Your task to perform on an android device: open app "Firefox Browser" (install if not already installed), go to login, and select forgot password Image 0: 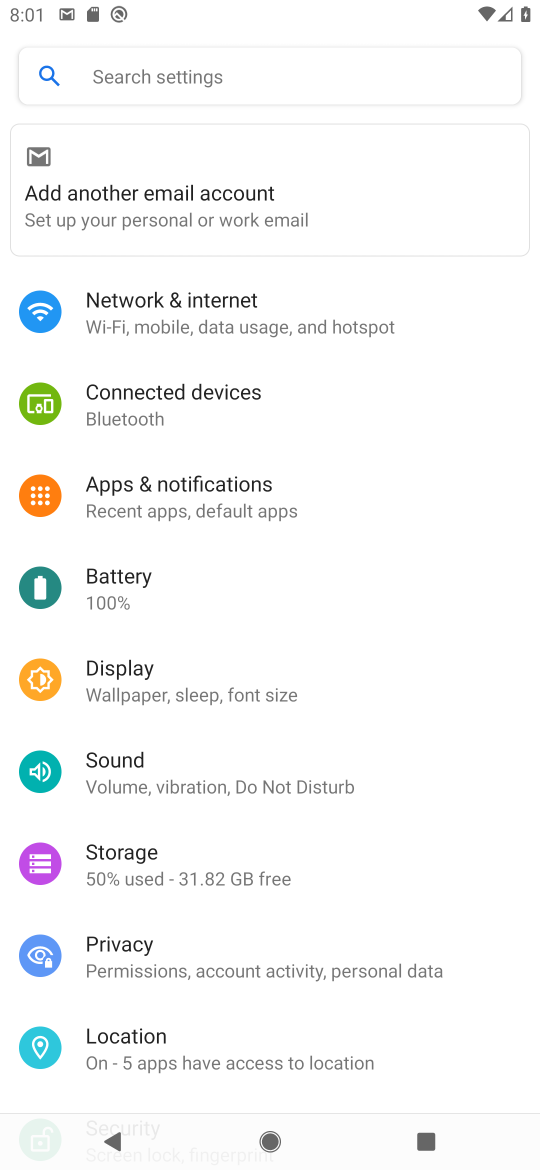
Step 0: press home button
Your task to perform on an android device: open app "Firefox Browser" (install if not already installed), go to login, and select forgot password Image 1: 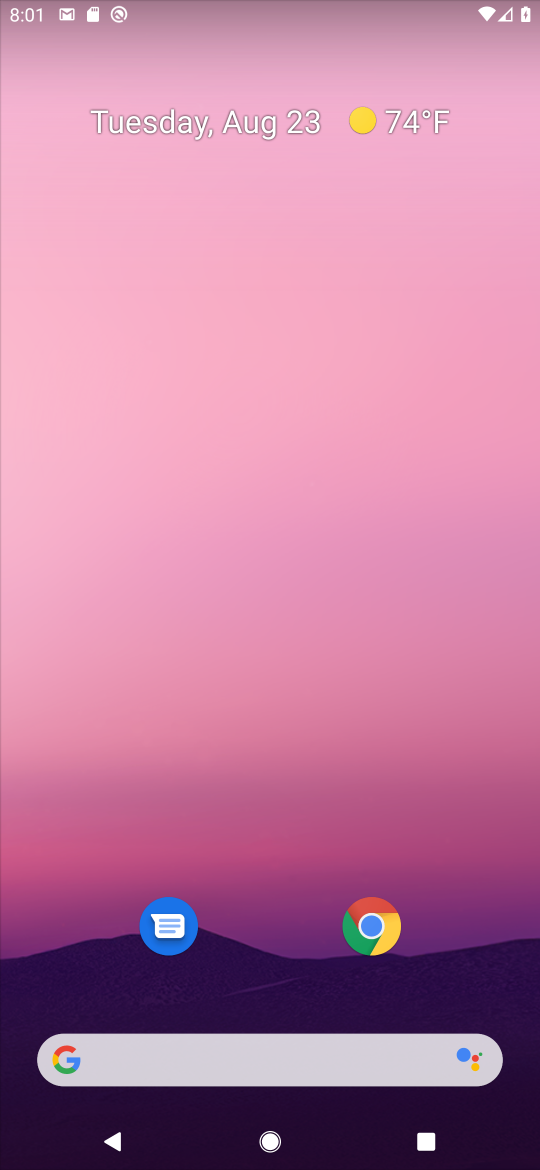
Step 1: drag from (232, 962) to (361, 11)
Your task to perform on an android device: open app "Firefox Browser" (install if not already installed), go to login, and select forgot password Image 2: 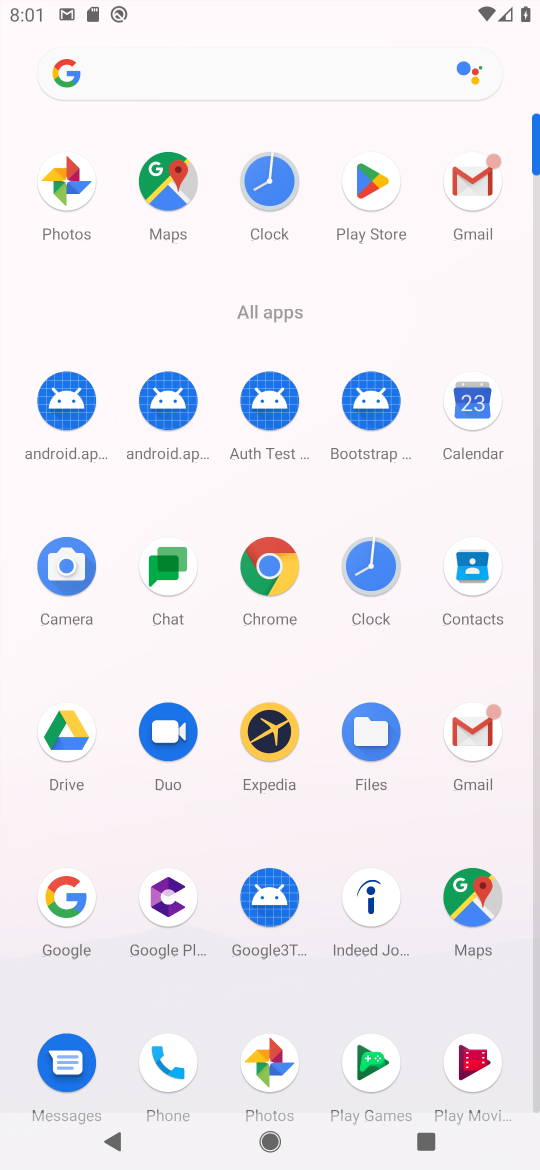
Step 2: click (384, 212)
Your task to perform on an android device: open app "Firefox Browser" (install if not already installed), go to login, and select forgot password Image 3: 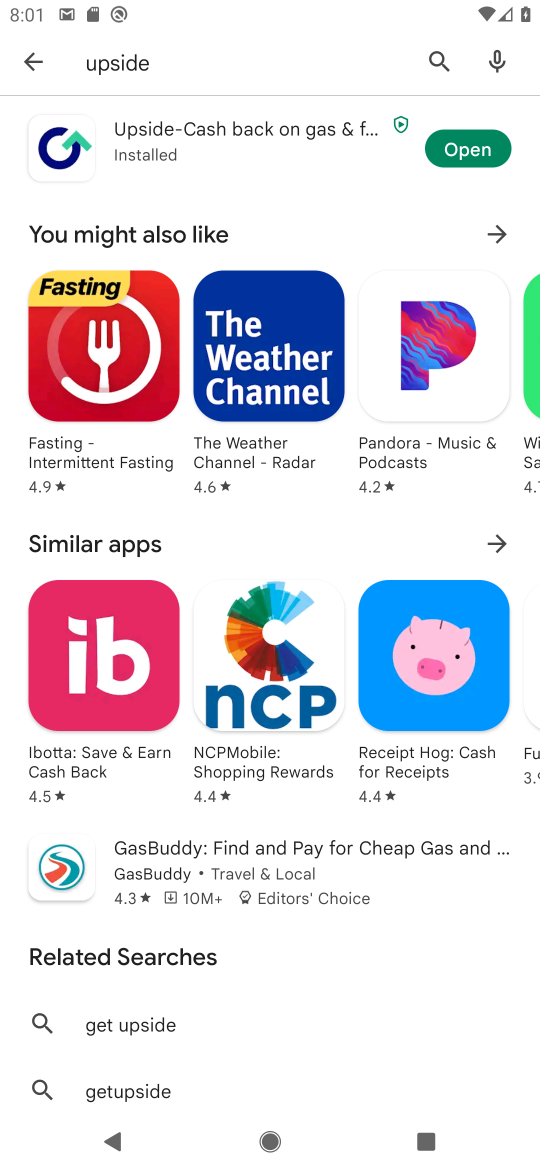
Step 3: click (177, 54)
Your task to perform on an android device: open app "Firefox Browser" (install if not already installed), go to login, and select forgot password Image 4: 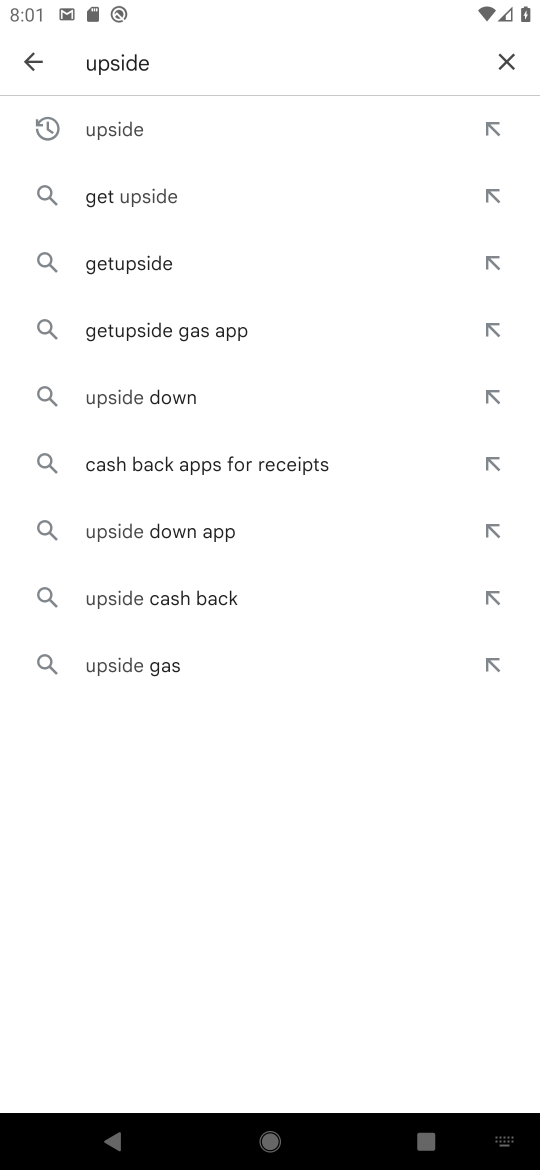
Step 4: click (509, 63)
Your task to perform on an android device: open app "Firefox Browser" (install if not already installed), go to login, and select forgot password Image 5: 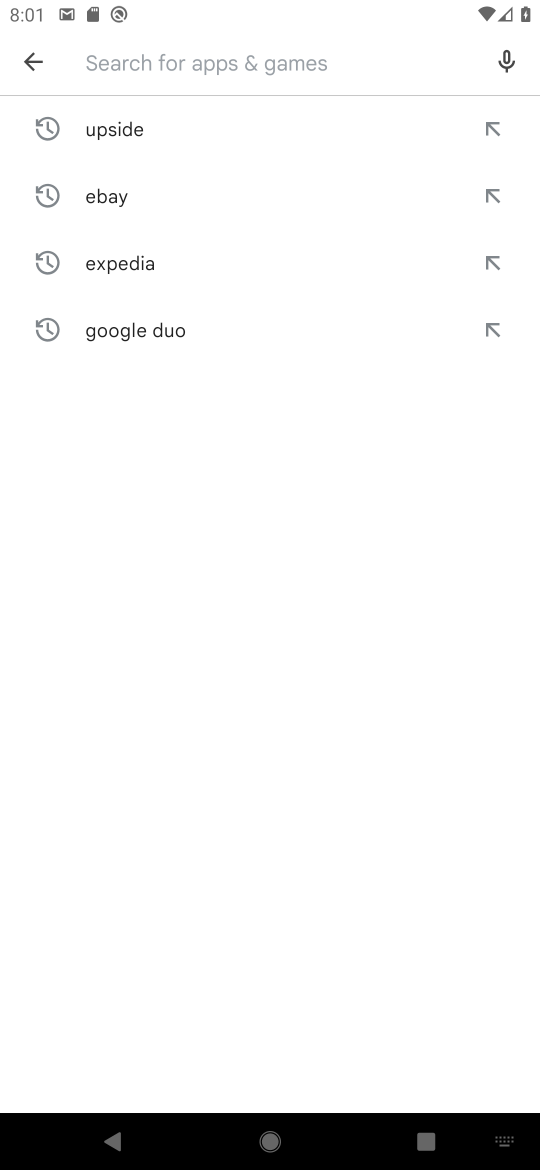
Step 5: type "firefox browser"
Your task to perform on an android device: open app "Firefox Browser" (install if not already installed), go to login, and select forgot password Image 6: 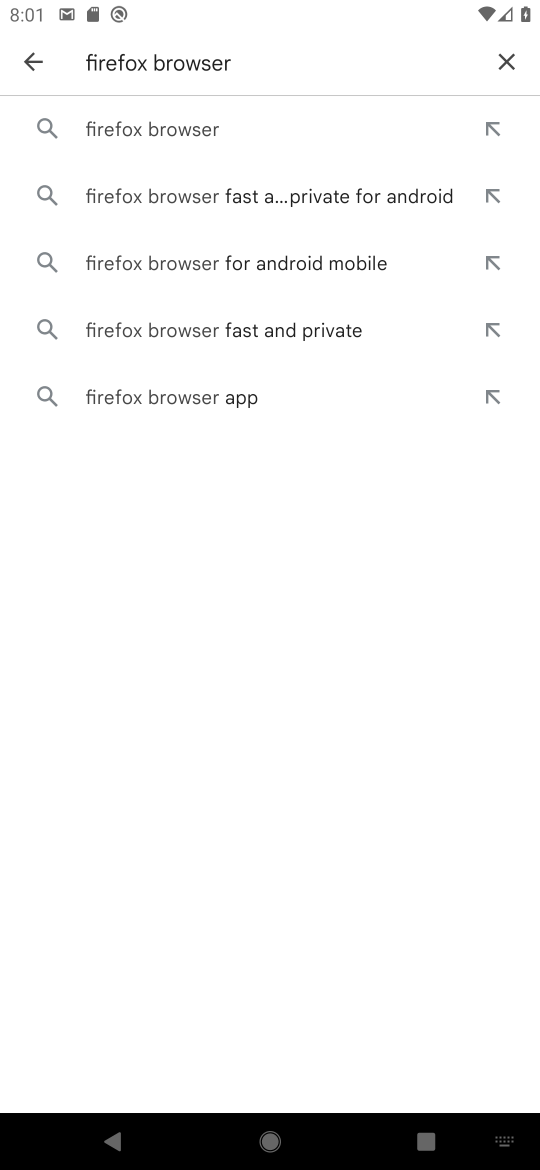
Step 6: click (93, 125)
Your task to perform on an android device: open app "Firefox Browser" (install if not already installed), go to login, and select forgot password Image 7: 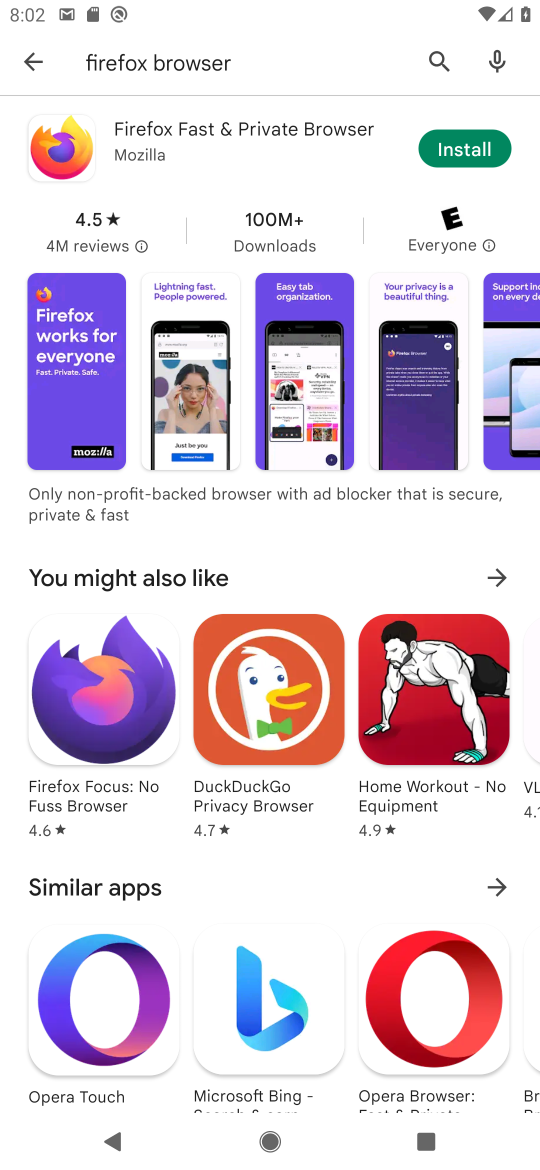
Step 7: click (472, 138)
Your task to perform on an android device: open app "Firefox Browser" (install if not already installed), go to login, and select forgot password Image 8: 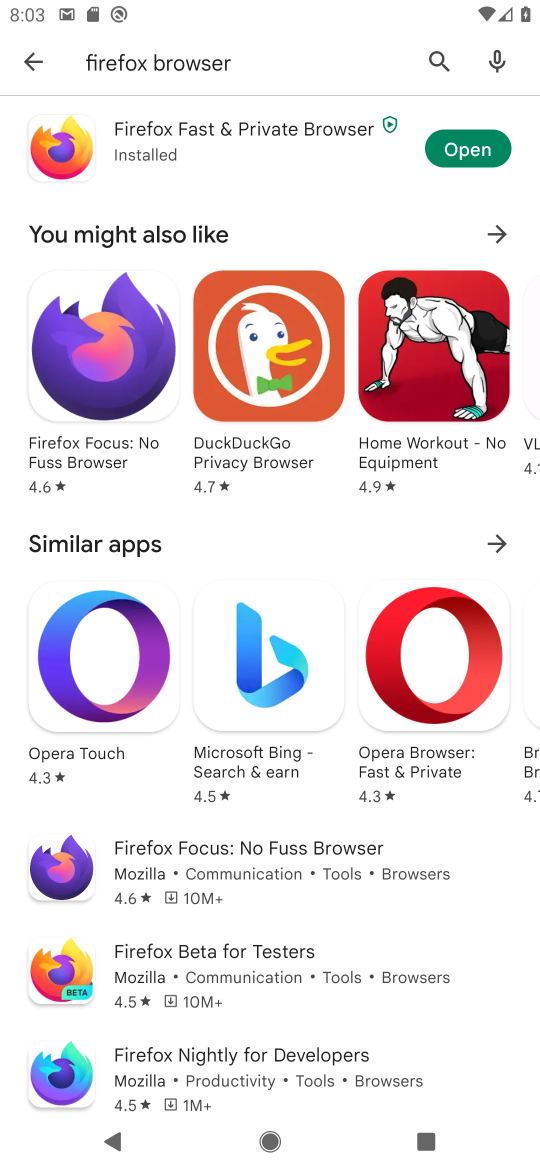
Step 8: click (476, 148)
Your task to perform on an android device: open app "Firefox Browser" (install if not already installed), go to login, and select forgot password Image 9: 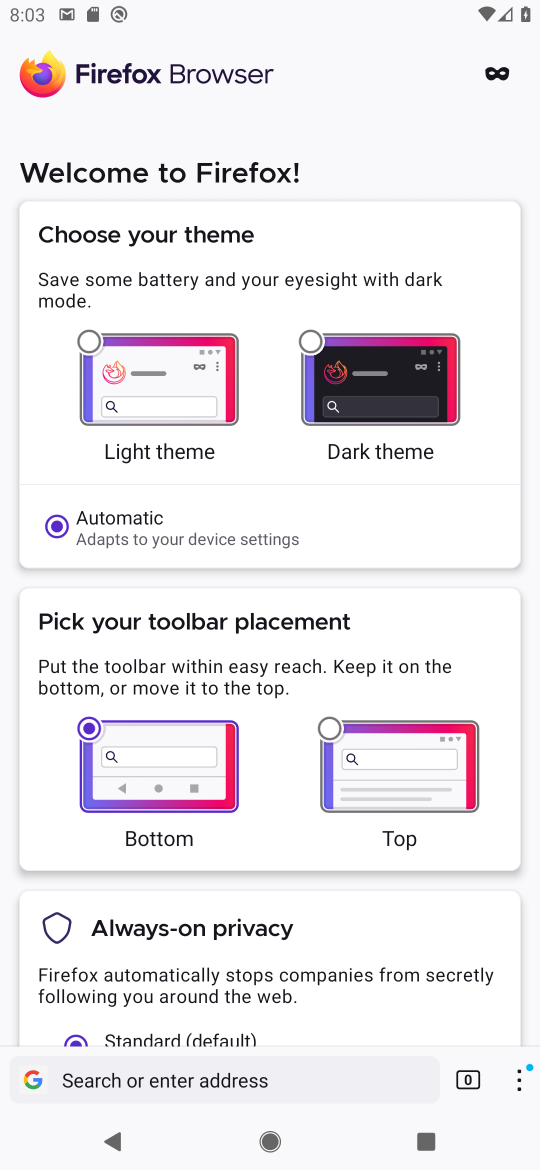
Step 9: drag from (265, 767) to (361, 352)
Your task to perform on an android device: open app "Firefox Browser" (install if not already installed), go to login, and select forgot password Image 10: 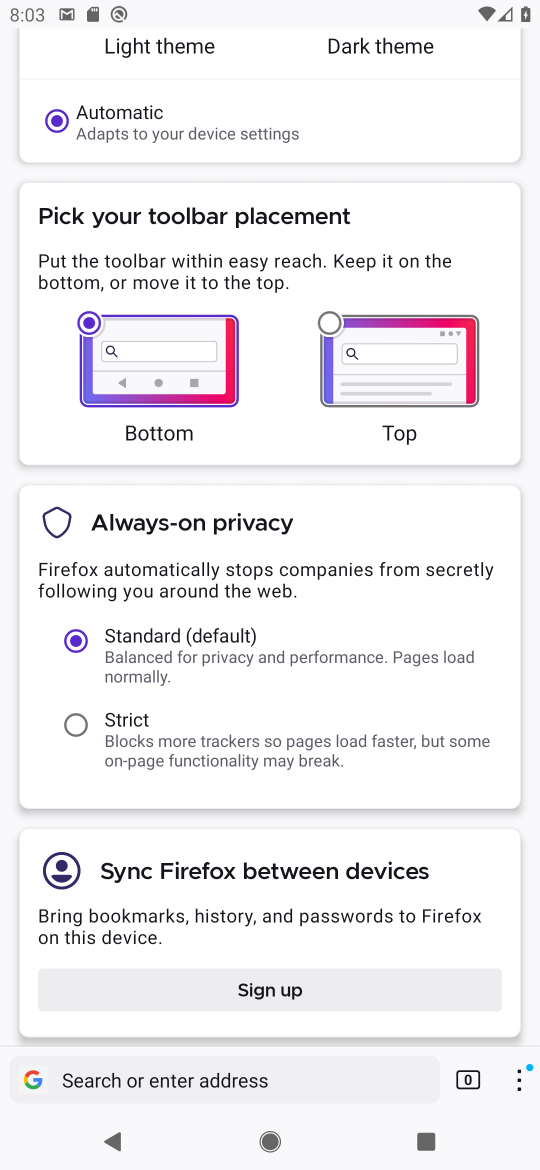
Step 10: drag from (327, 804) to (389, 501)
Your task to perform on an android device: open app "Firefox Browser" (install if not already installed), go to login, and select forgot password Image 11: 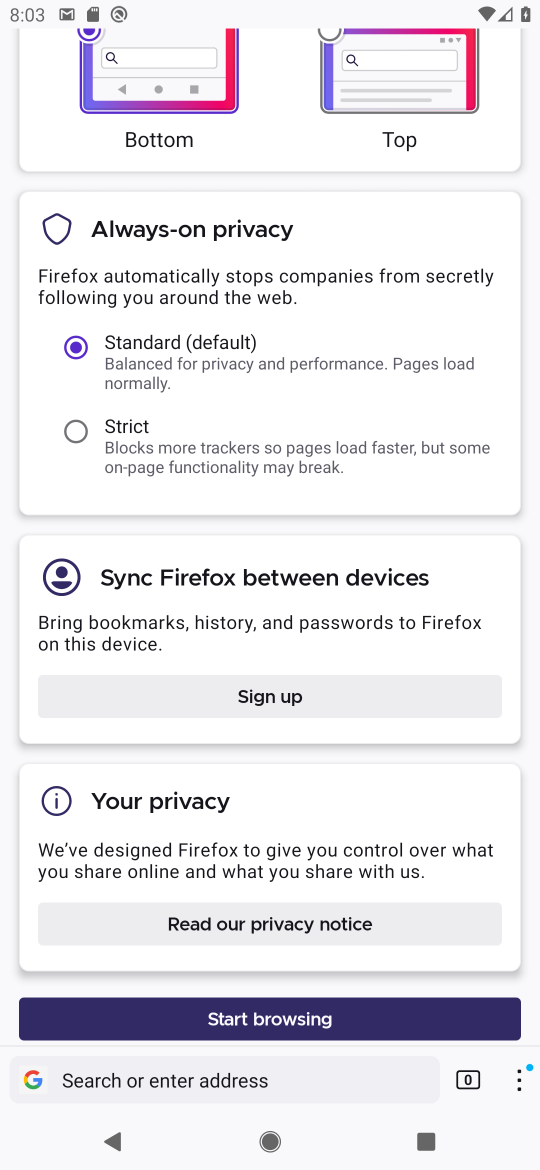
Step 11: click (286, 684)
Your task to perform on an android device: open app "Firefox Browser" (install if not already installed), go to login, and select forgot password Image 12: 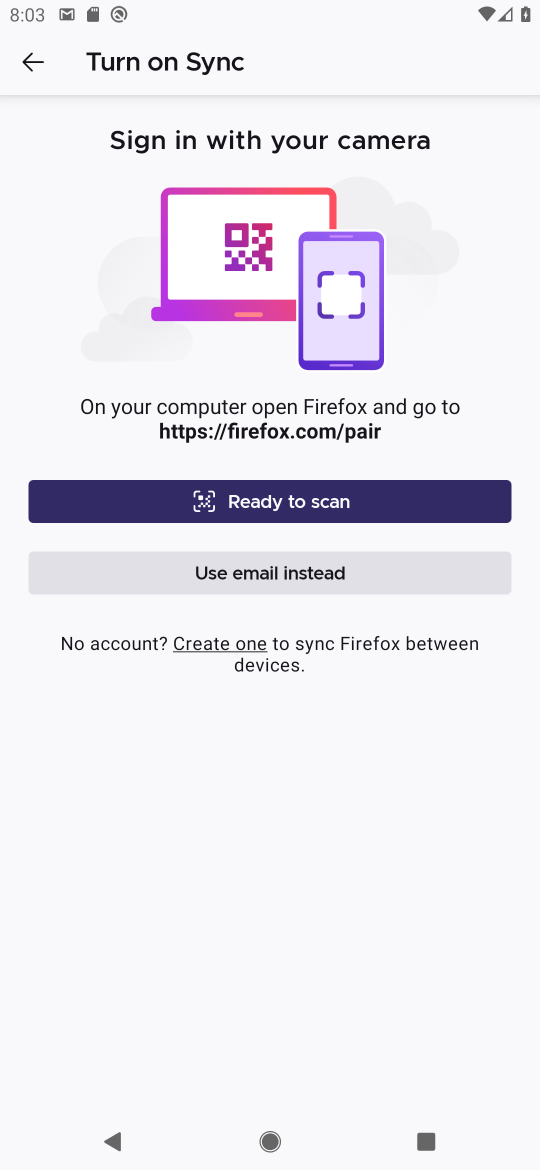
Step 12: click (305, 559)
Your task to perform on an android device: open app "Firefox Browser" (install if not already installed), go to login, and select forgot password Image 13: 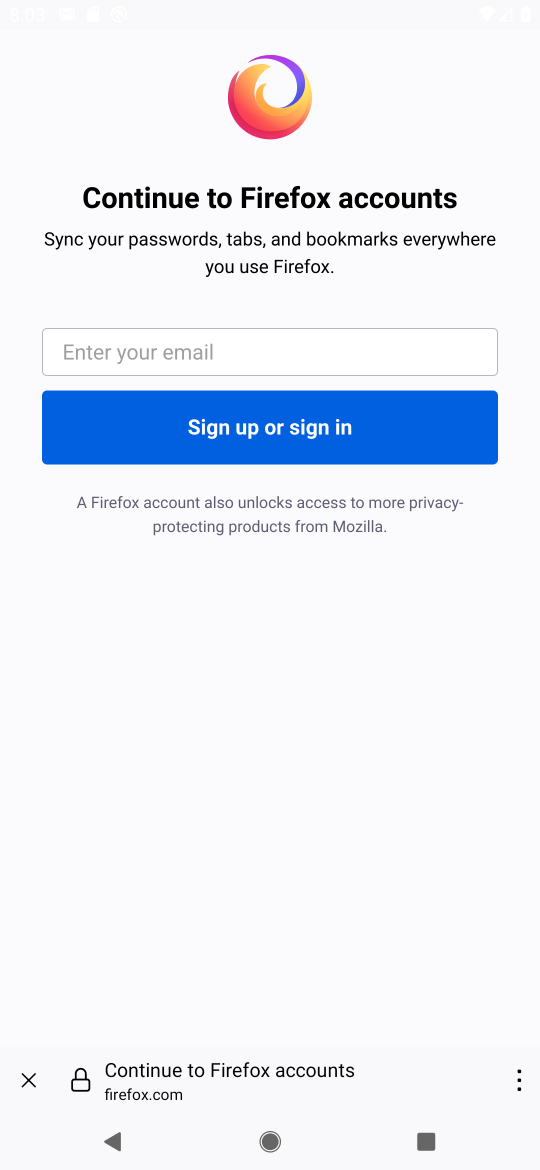
Step 13: task complete